Your task to perform on an android device: What's on my calendar today? Image 0: 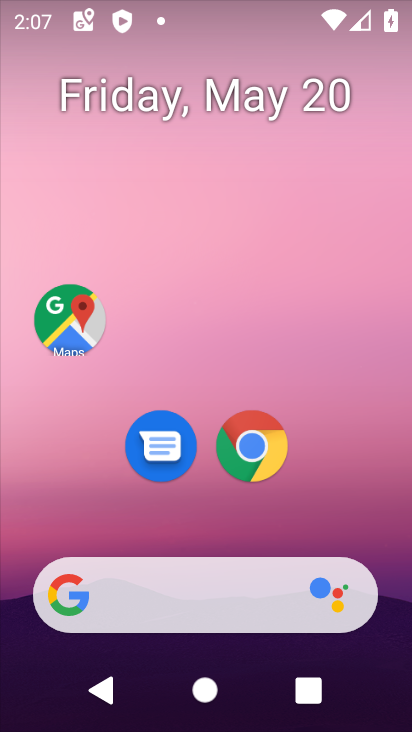
Step 0: drag from (364, 574) to (316, 3)
Your task to perform on an android device: What's on my calendar today? Image 1: 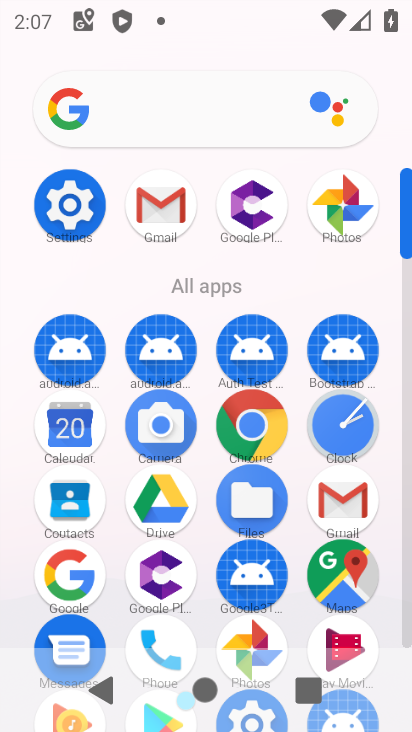
Step 1: click (66, 434)
Your task to perform on an android device: What's on my calendar today? Image 2: 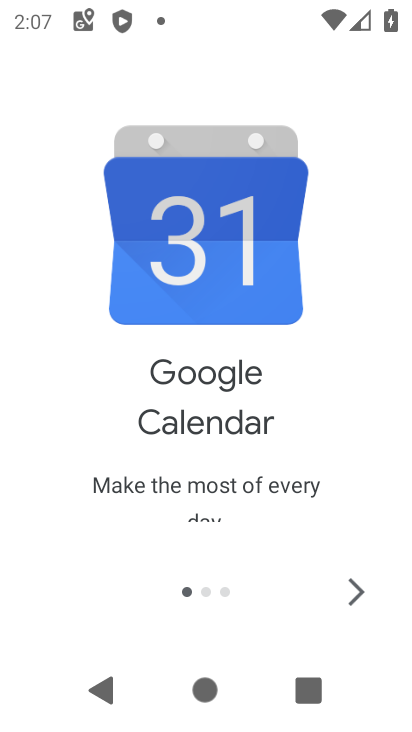
Step 2: click (357, 598)
Your task to perform on an android device: What's on my calendar today? Image 3: 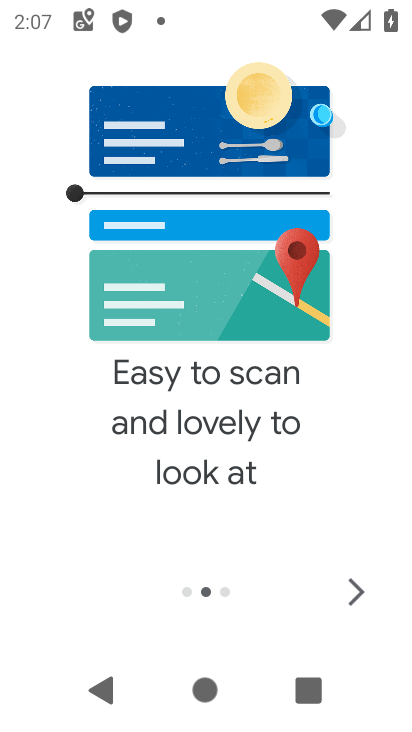
Step 3: click (357, 598)
Your task to perform on an android device: What's on my calendar today? Image 4: 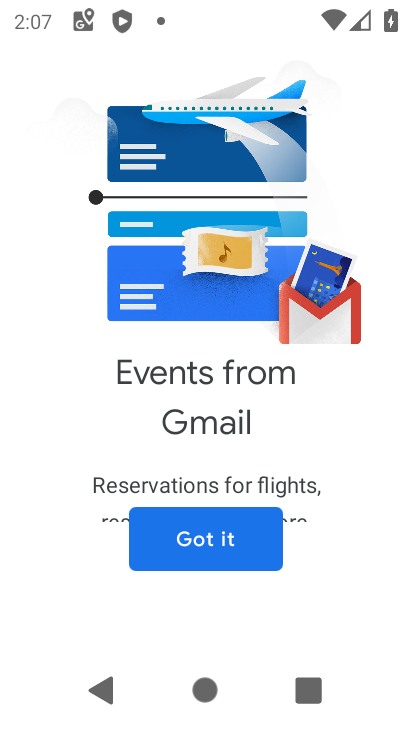
Step 4: click (221, 543)
Your task to perform on an android device: What's on my calendar today? Image 5: 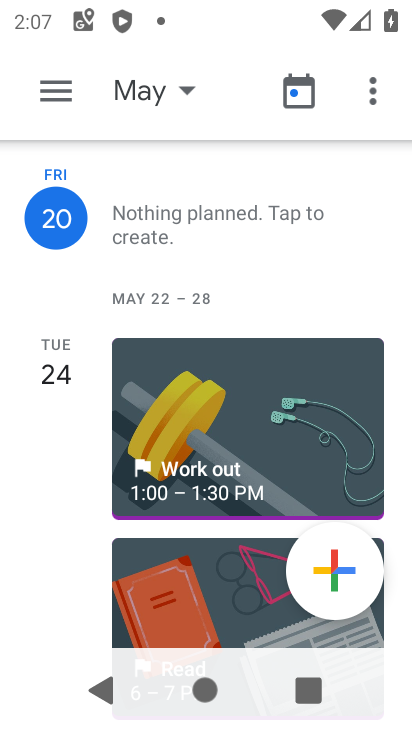
Step 5: click (148, 225)
Your task to perform on an android device: What's on my calendar today? Image 6: 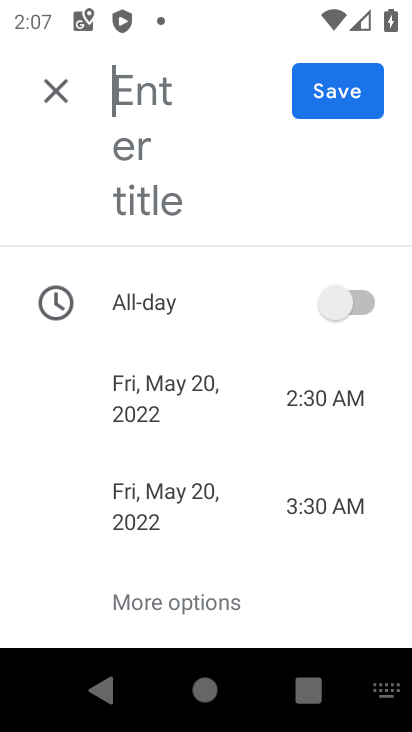
Step 6: task complete